Your task to perform on an android device: add a contact Image 0: 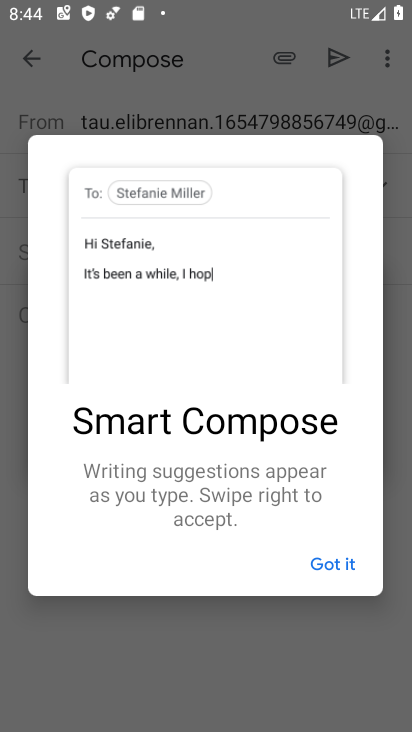
Step 0: press home button
Your task to perform on an android device: add a contact Image 1: 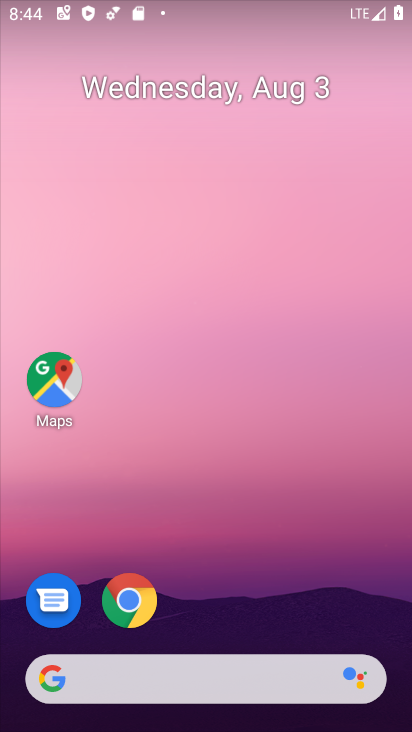
Step 1: drag from (233, 619) to (273, 0)
Your task to perform on an android device: add a contact Image 2: 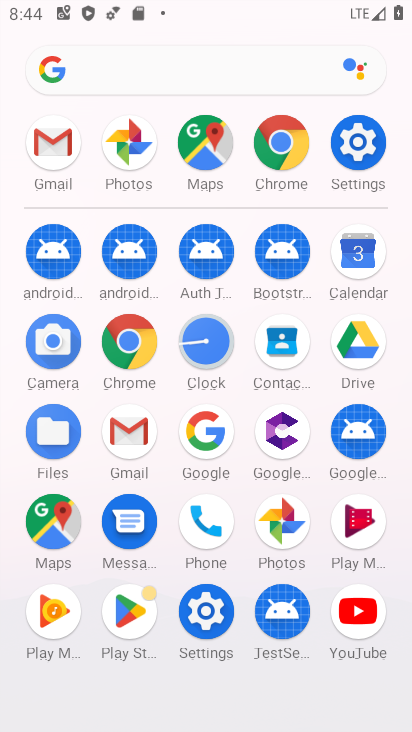
Step 2: click (293, 364)
Your task to perform on an android device: add a contact Image 3: 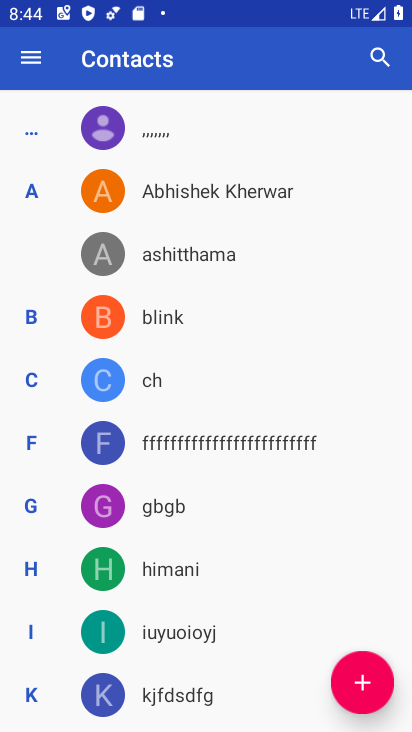
Step 3: click (363, 678)
Your task to perform on an android device: add a contact Image 4: 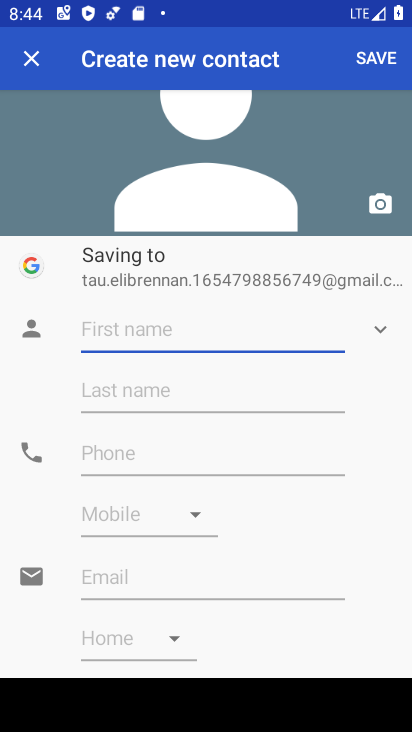
Step 4: type "fadel"
Your task to perform on an android device: add a contact Image 5: 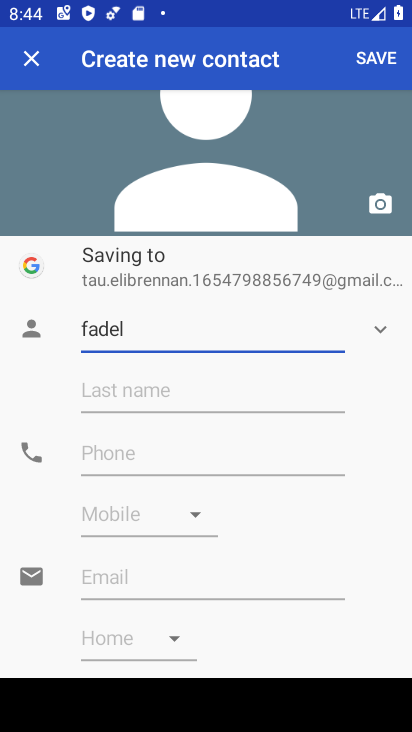
Step 5: click (379, 53)
Your task to perform on an android device: add a contact Image 6: 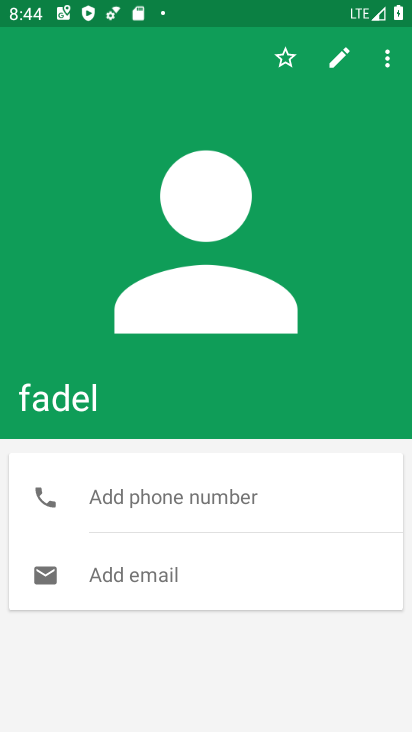
Step 6: task complete